Your task to perform on an android device: open app "Pluto TV - Live TV and Movies" (install if not already installed), go to login, and select forgot password Image 0: 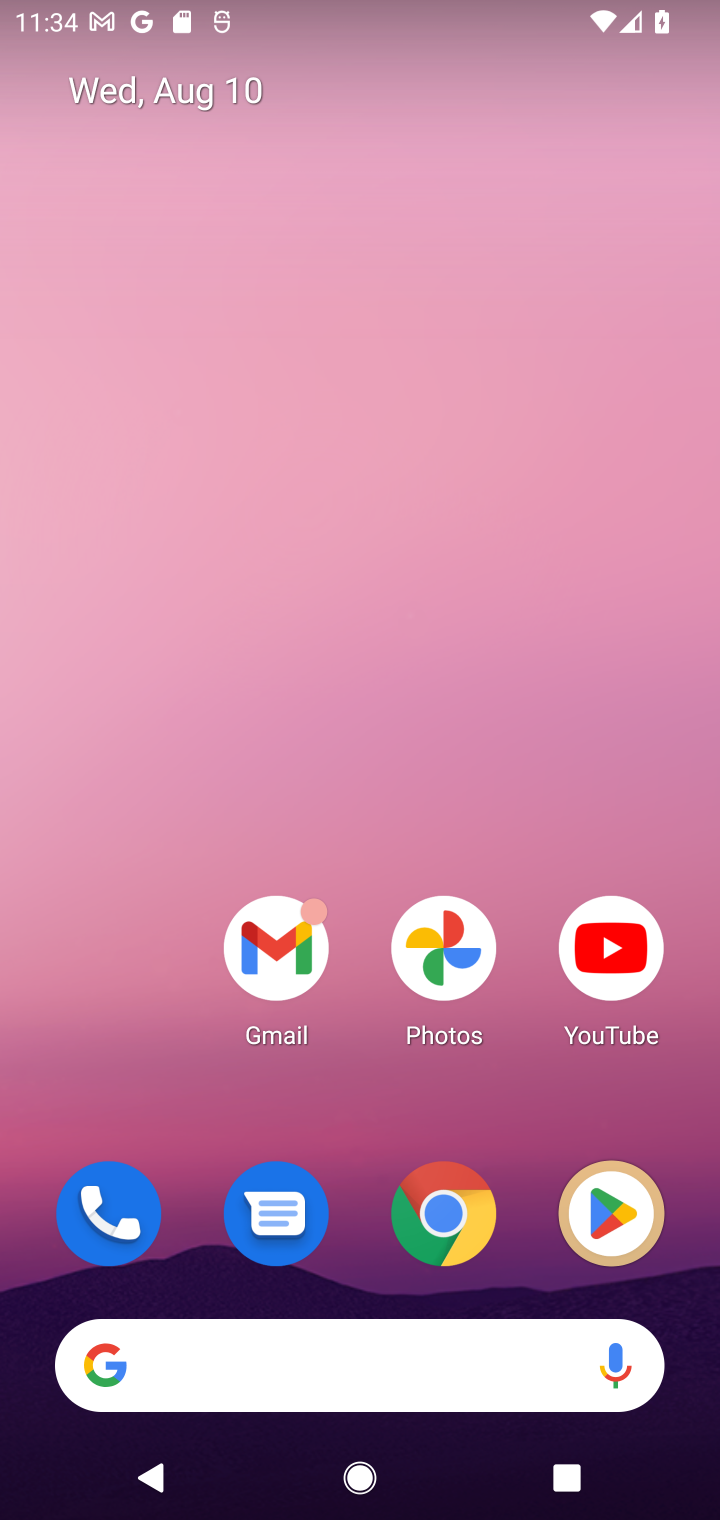
Step 0: drag from (310, 1350) to (386, 301)
Your task to perform on an android device: open app "Pluto TV - Live TV and Movies" (install if not already installed), go to login, and select forgot password Image 1: 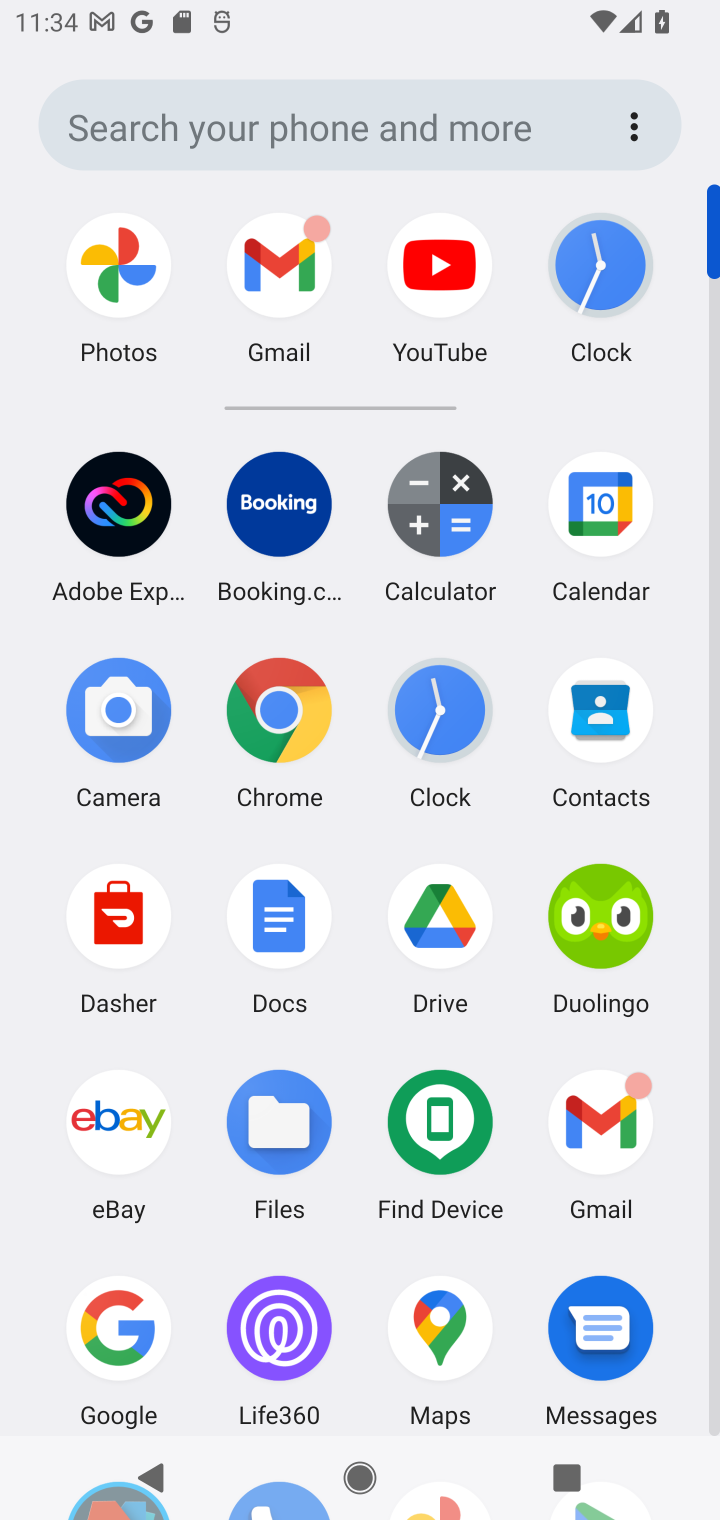
Step 1: drag from (372, 1153) to (413, 747)
Your task to perform on an android device: open app "Pluto TV - Live TV and Movies" (install if not already installed), go to login, and select forgot password Image 2: 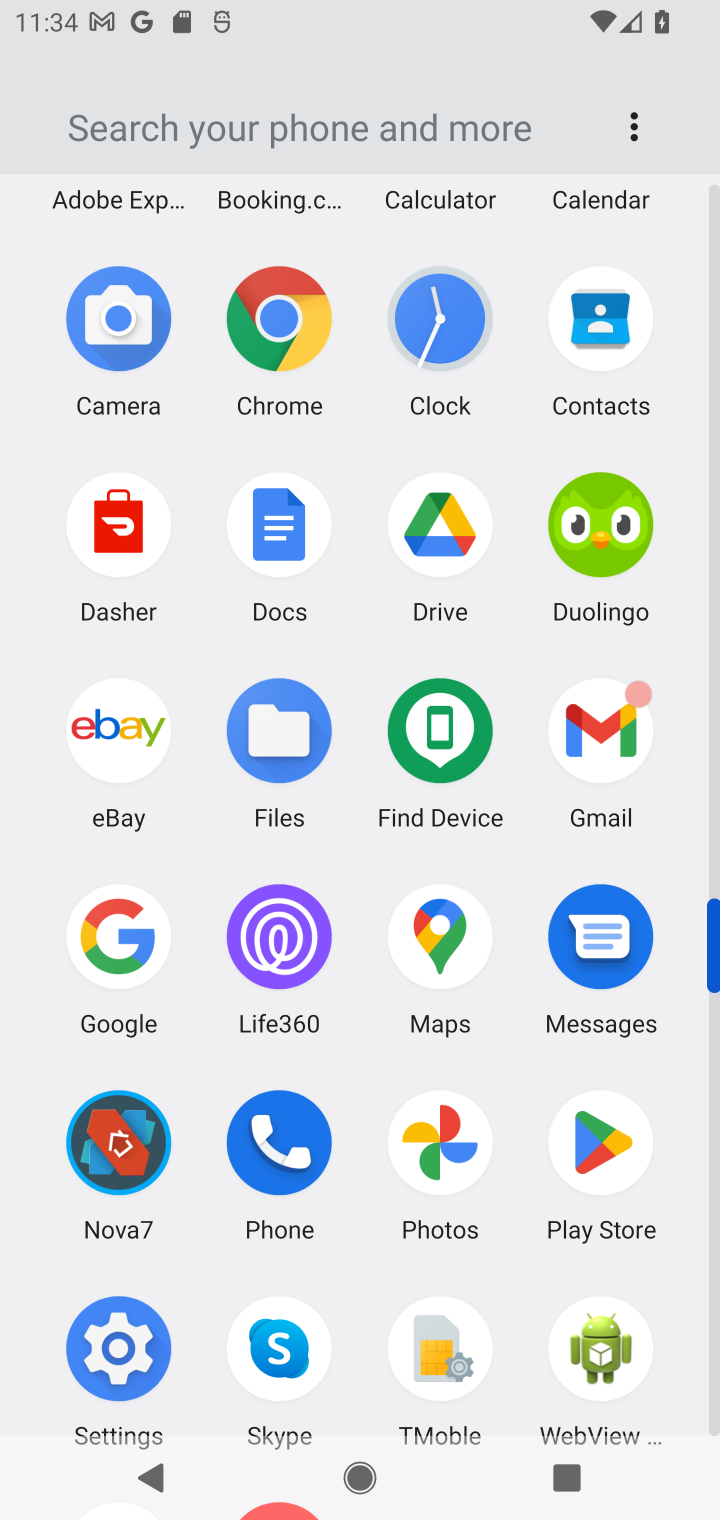
Step 2: click (603, 1145)
Your task to perform on an android device: open app "Pluto TV - Live TV and Movies" (install if not already installed), go to login, and select forgot password Image 3: 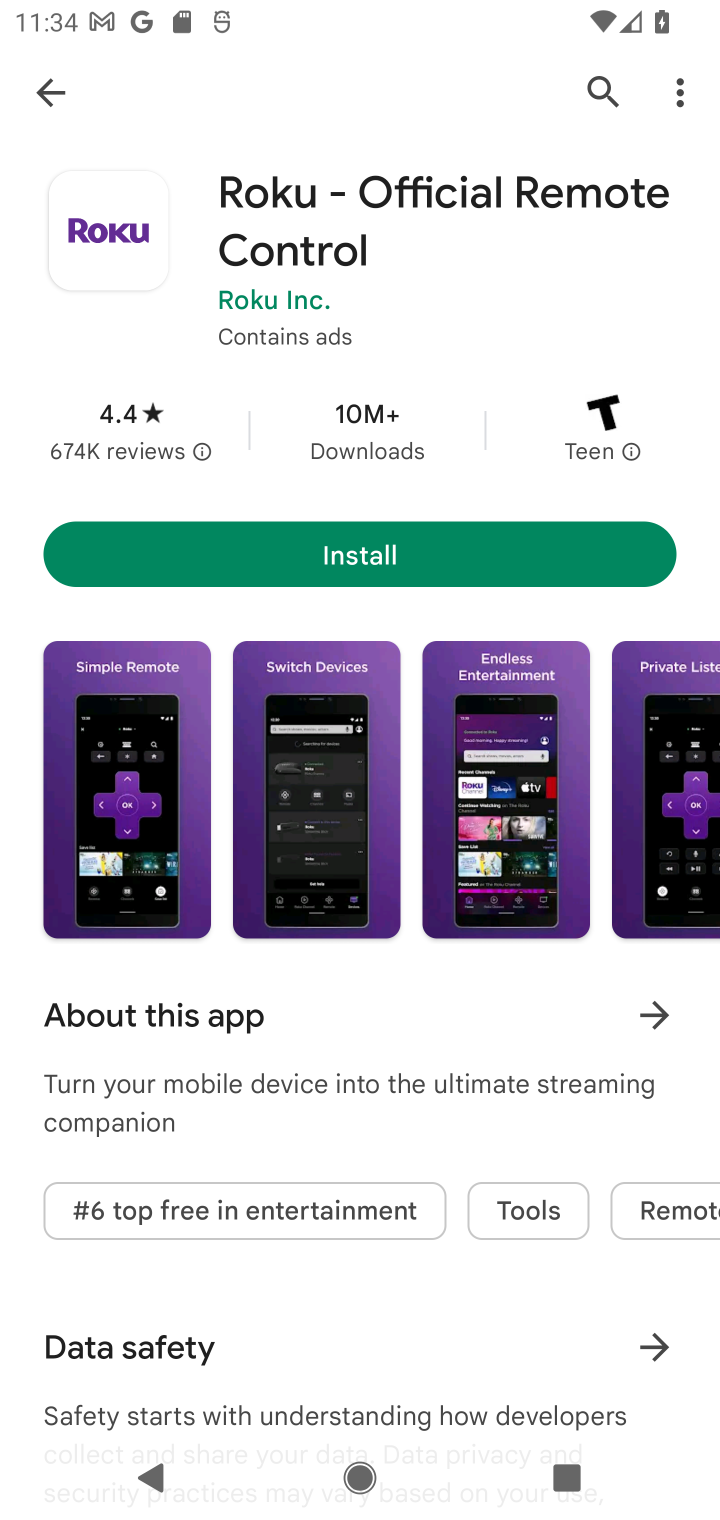
Step 3: press back button
Your task to perform on an android device: open app "Pluto TV - Live TV and Movies" (install if not already installed), go to login, and select forgot password Image 4: 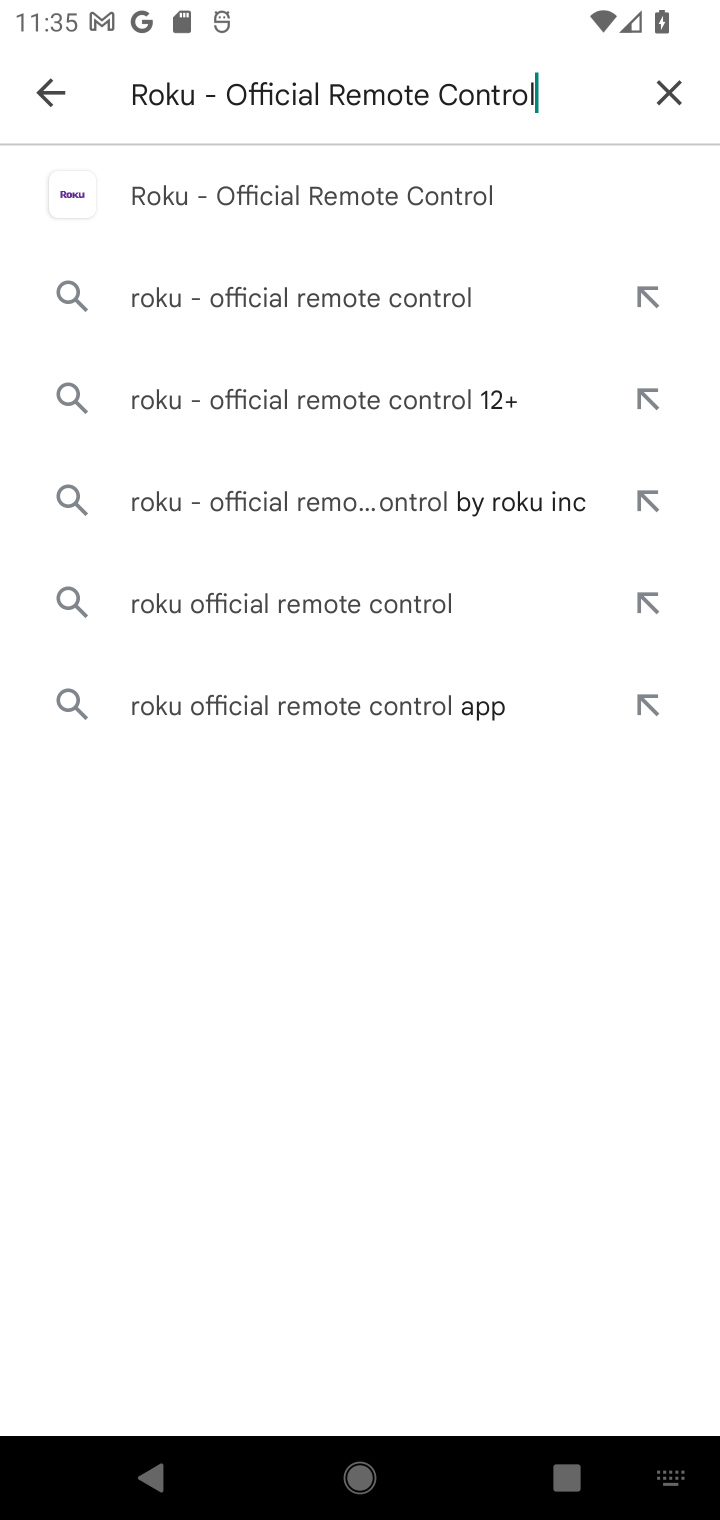
Step 4: press back button
Your task to perform on an android device: open app "Pluto TV - Live TV and Movies" (install if not already installed), go to login, and select forgot password Image 5: 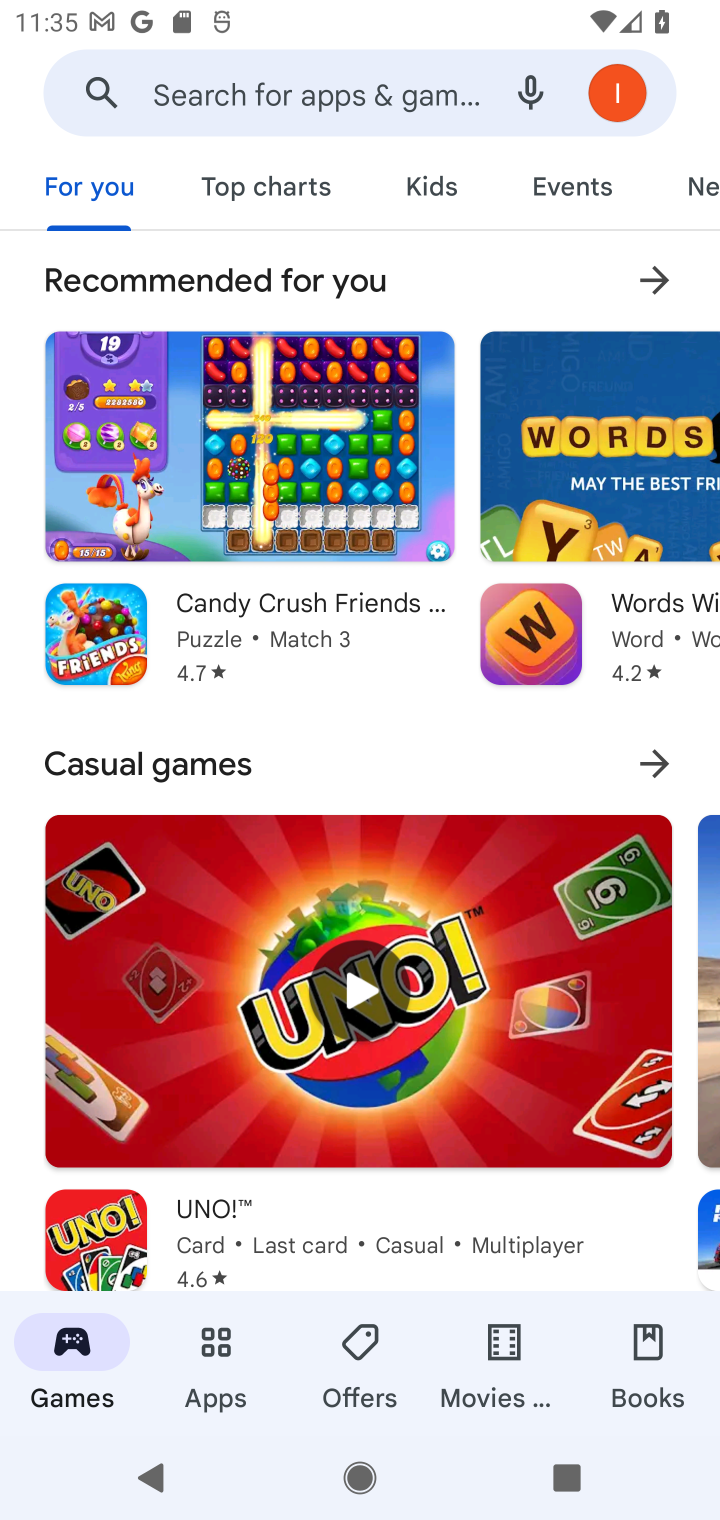
Step 5: click (264, 85)
Your task to perform on an android device: open app "Pluto TV - Live TV and Movies" (install if not already installed), go to login, and select forgot password Image 6: 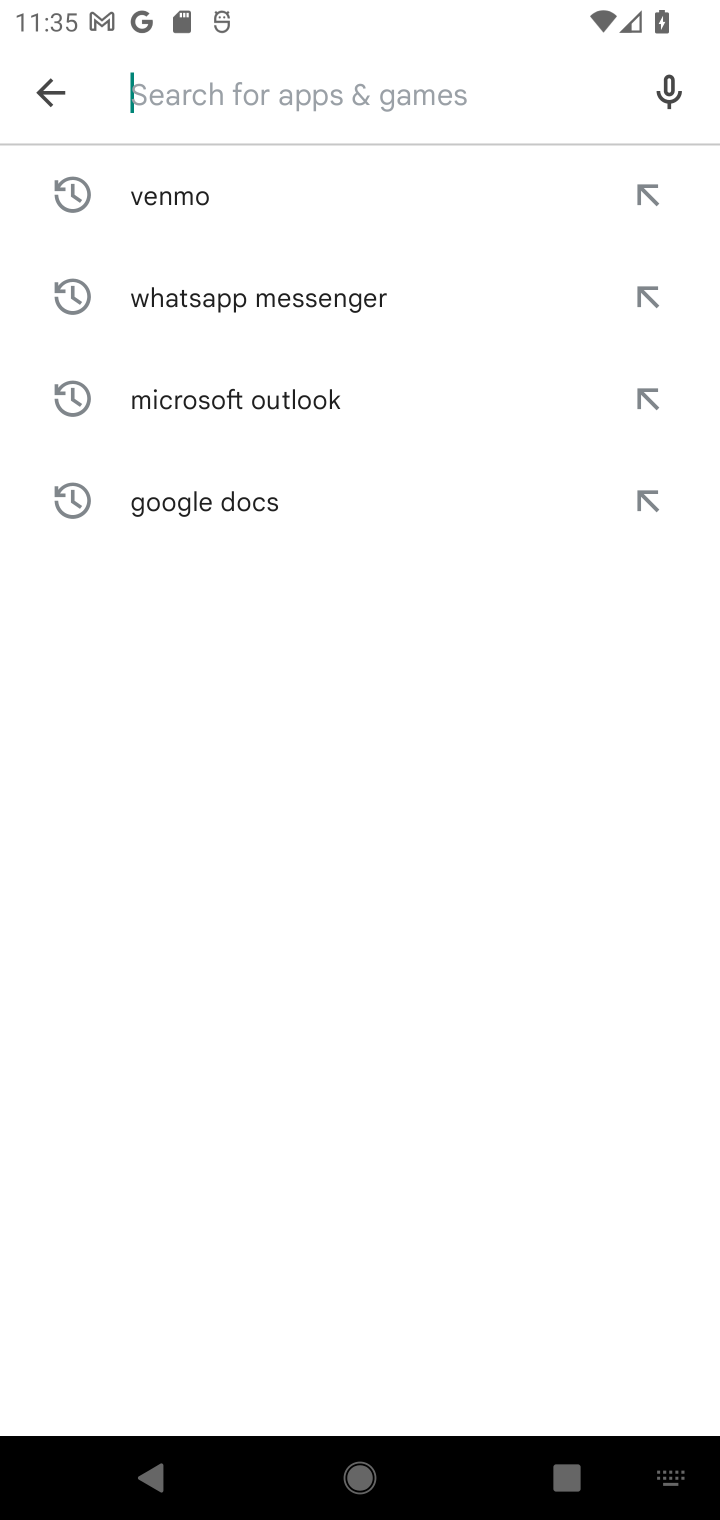
Step 6: type "Pluto TV - Live TV and Movies"
Your task to perform on an android device: open app "Pluto TV - Live TV and Movies" (install if not already installed), go to login, and select forgot password Image 7: 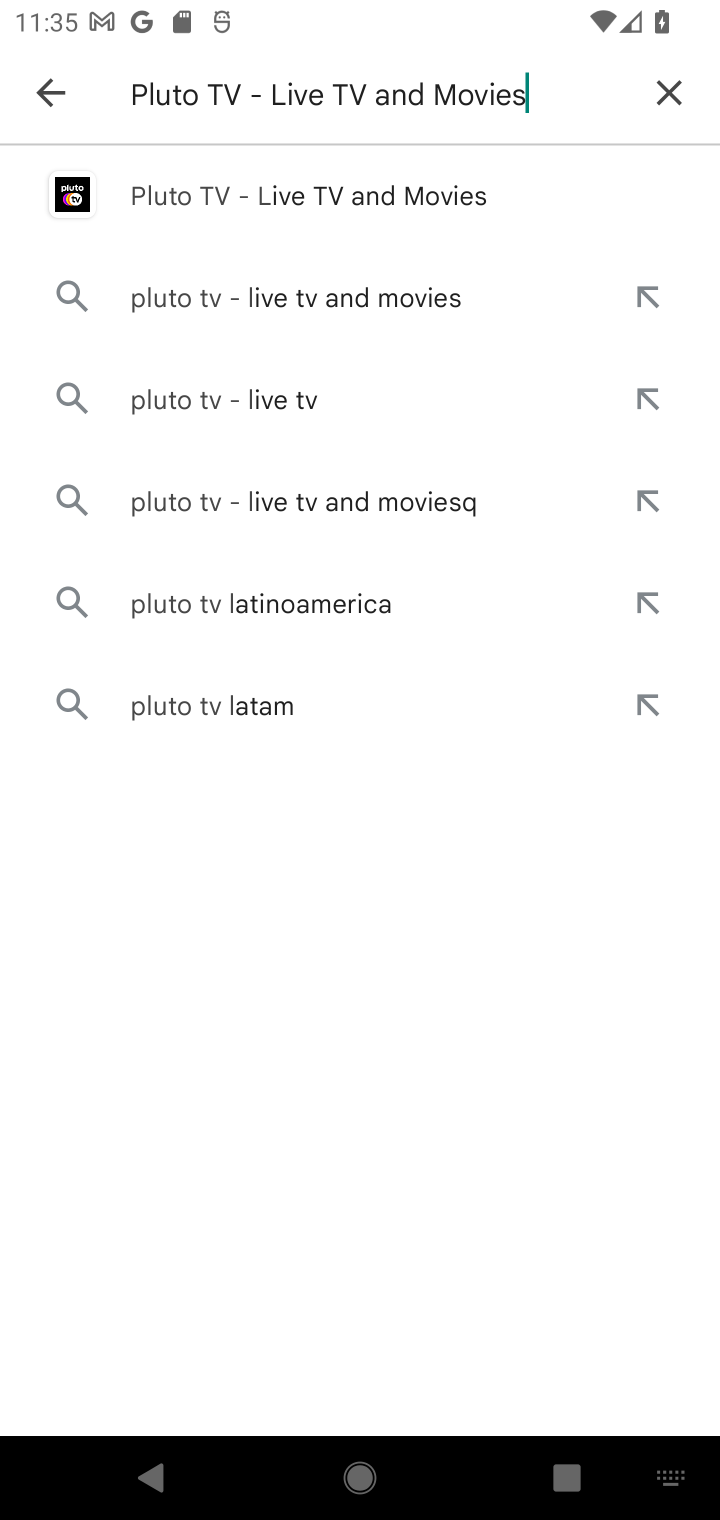
Step 7: type ""
Your task to perform on an android device: open app "Pluto TV - Live TV and Movies" (install if not already installed), go to login, and select forgot password Image 8: 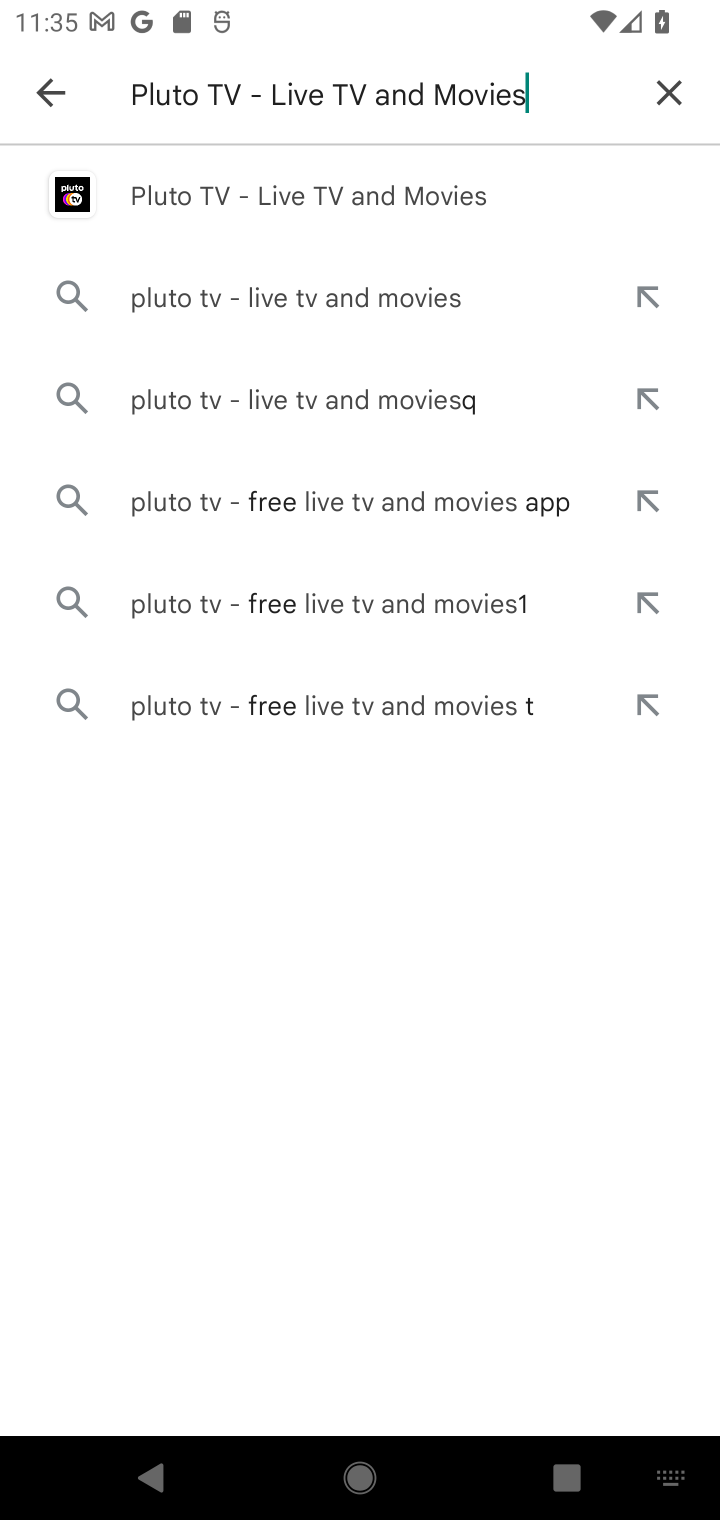
Step 8: click (271, 202)
Your task to perform on an android device: open app "Pluto TV - Live TV and Movies" (install if not already installed), go to login, and select forgot password Image 9: 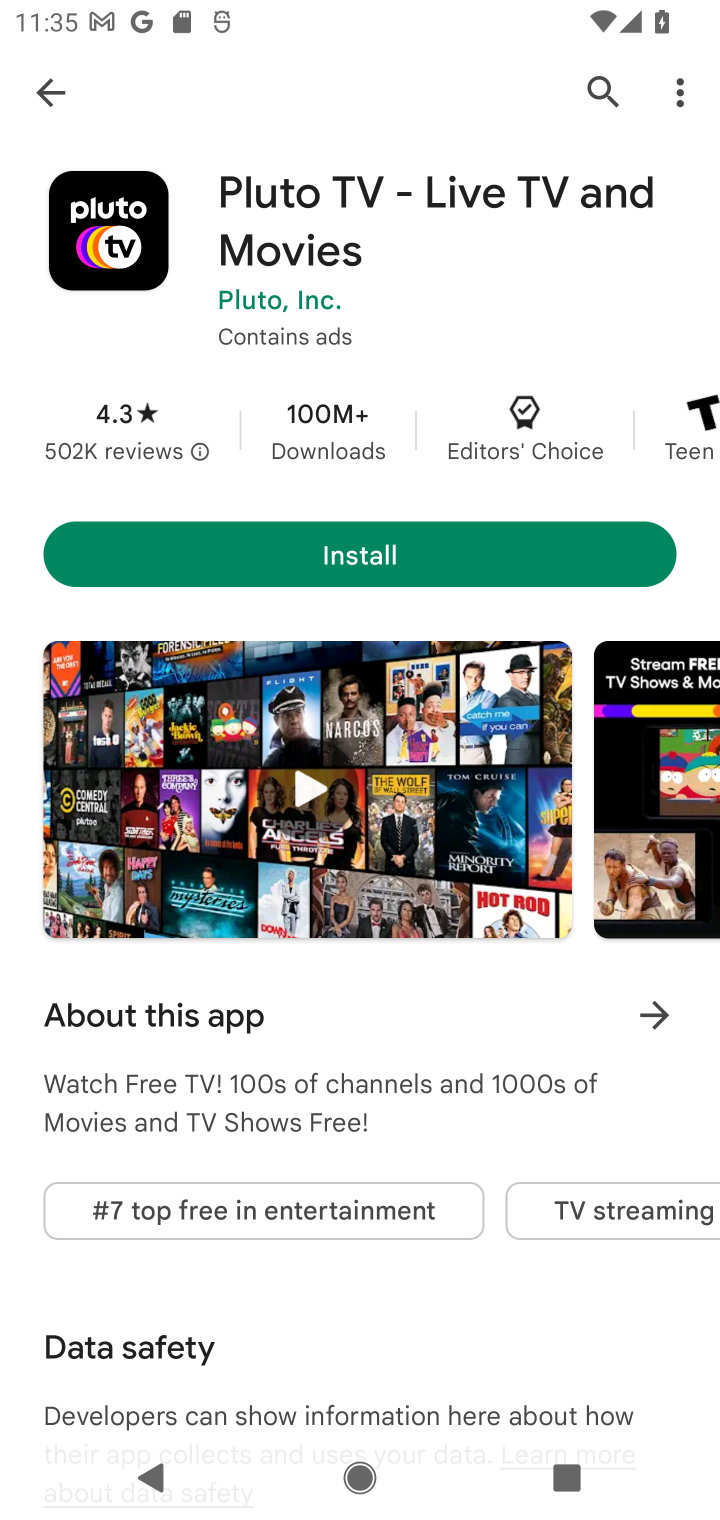
Step 9: click (352, 556)
Your task to perform on an android device: open app "Pluto TV - Live TV and Movies" (install if not already installed), go to login, and select forgot password Image 10: 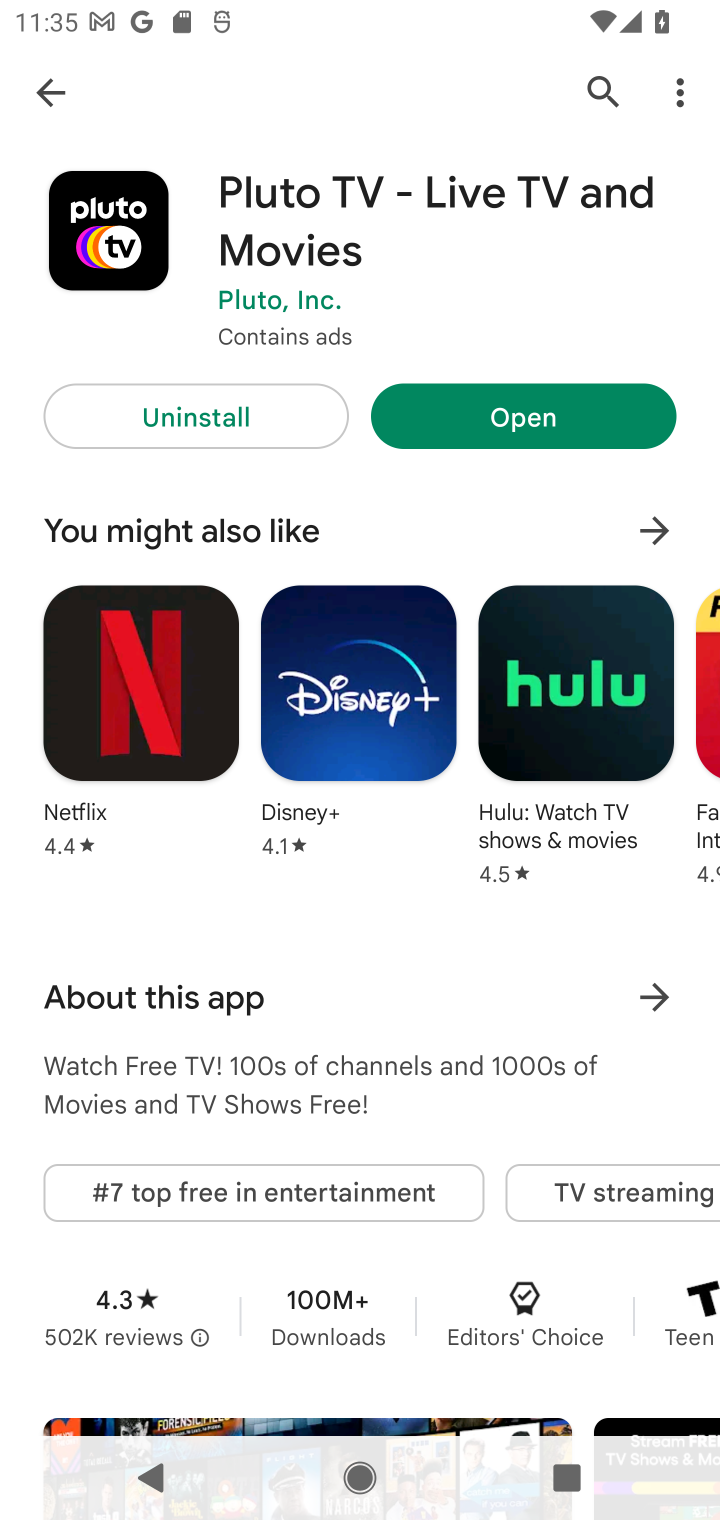
Step 10: click (523, 428)
Your task to perform on an android device: open app "Pluto TV - Live TV and Movies" (install if not already installed), go to login, and select forgot password Image 11: 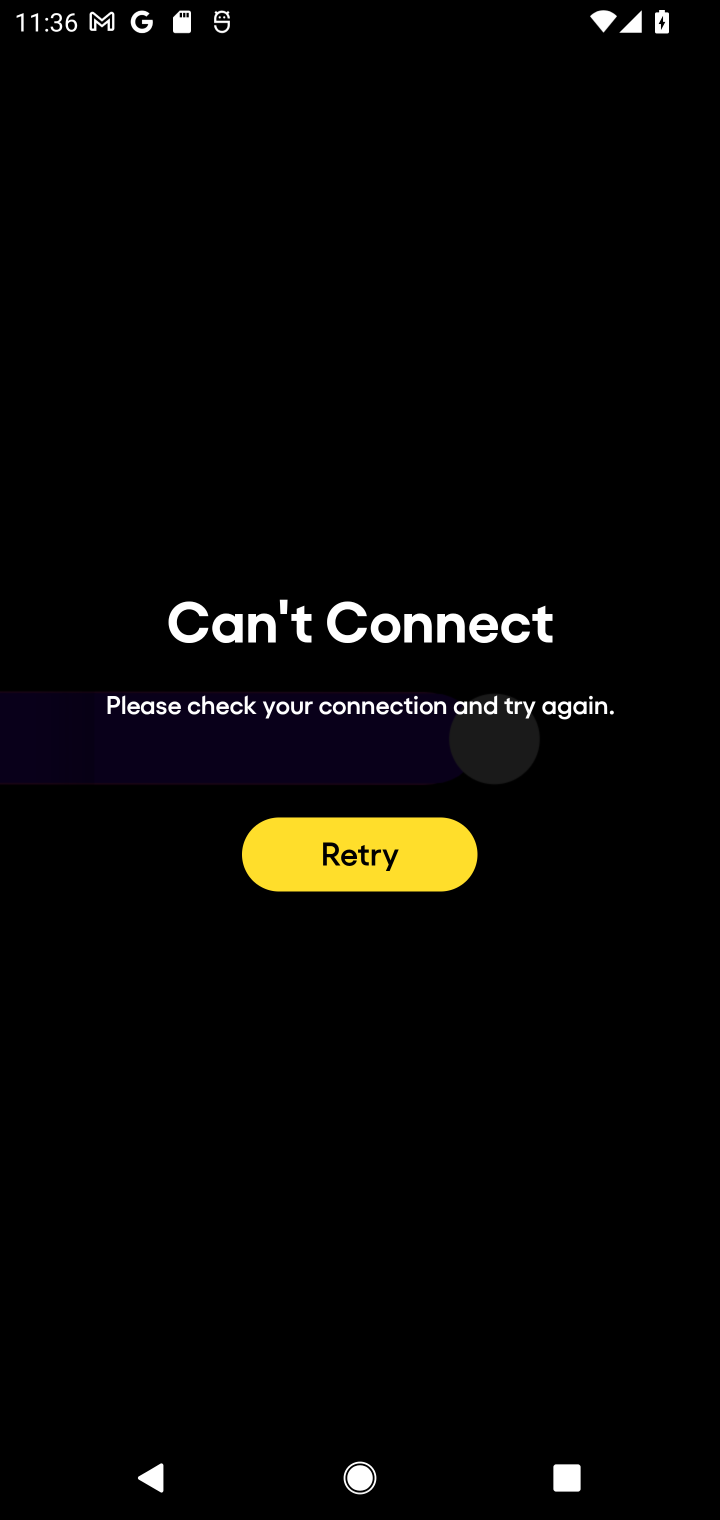
Step 11: click (360, 873)
Your task to perform on an android device: open app "Pluto TV - Live TV and Movies" (install if not already installed), go to login, and select forgot password Image 12: 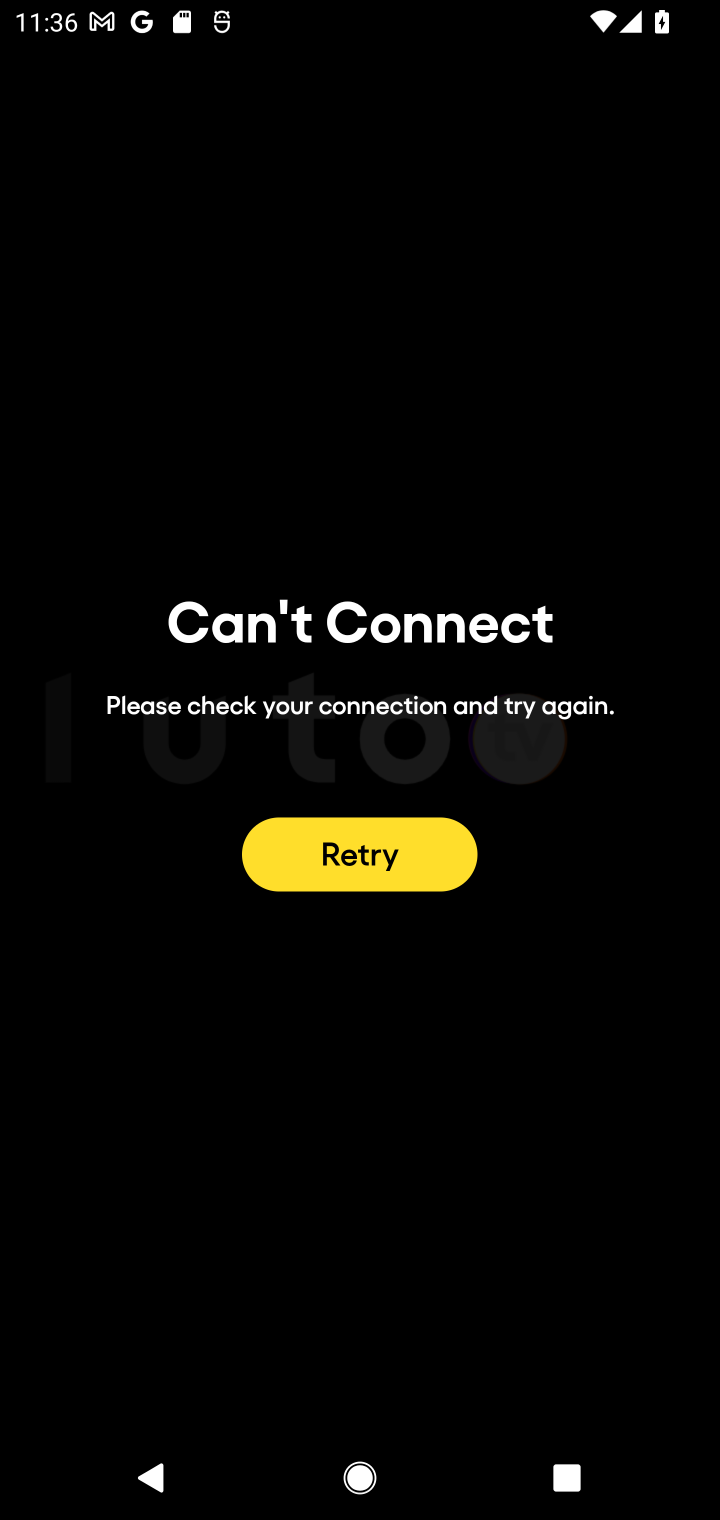
Step 12: click (396, 706)
Your task to perform on an android device: open app "Pluto TV - Live TV and Movies" (install if not already installed), go to login, and select forgot password Image 13: 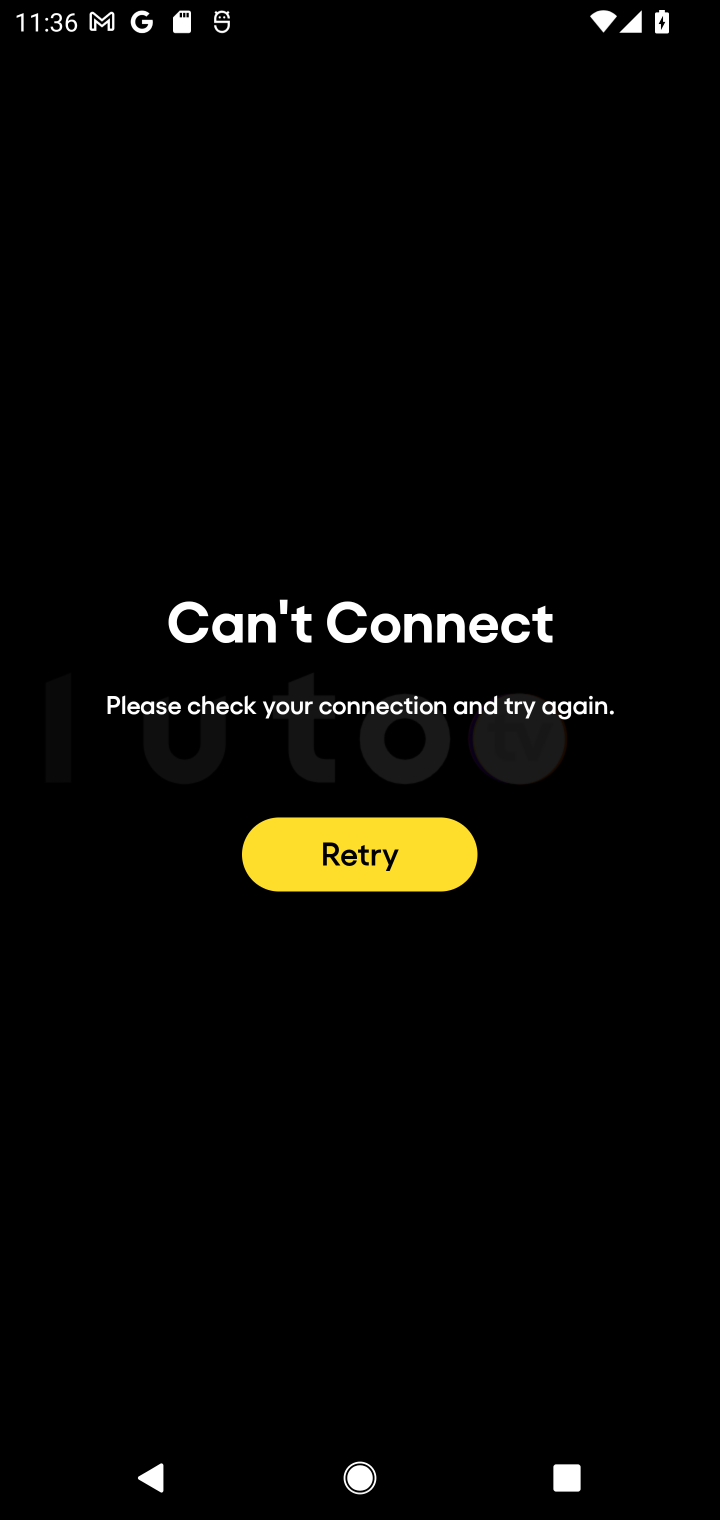
Step 13: click (364, 848)
Your task to perform on an android device: open app "Pluto TV - Live TV and Movies" (install if not already installed), go to login, and select forgot password Image 14: 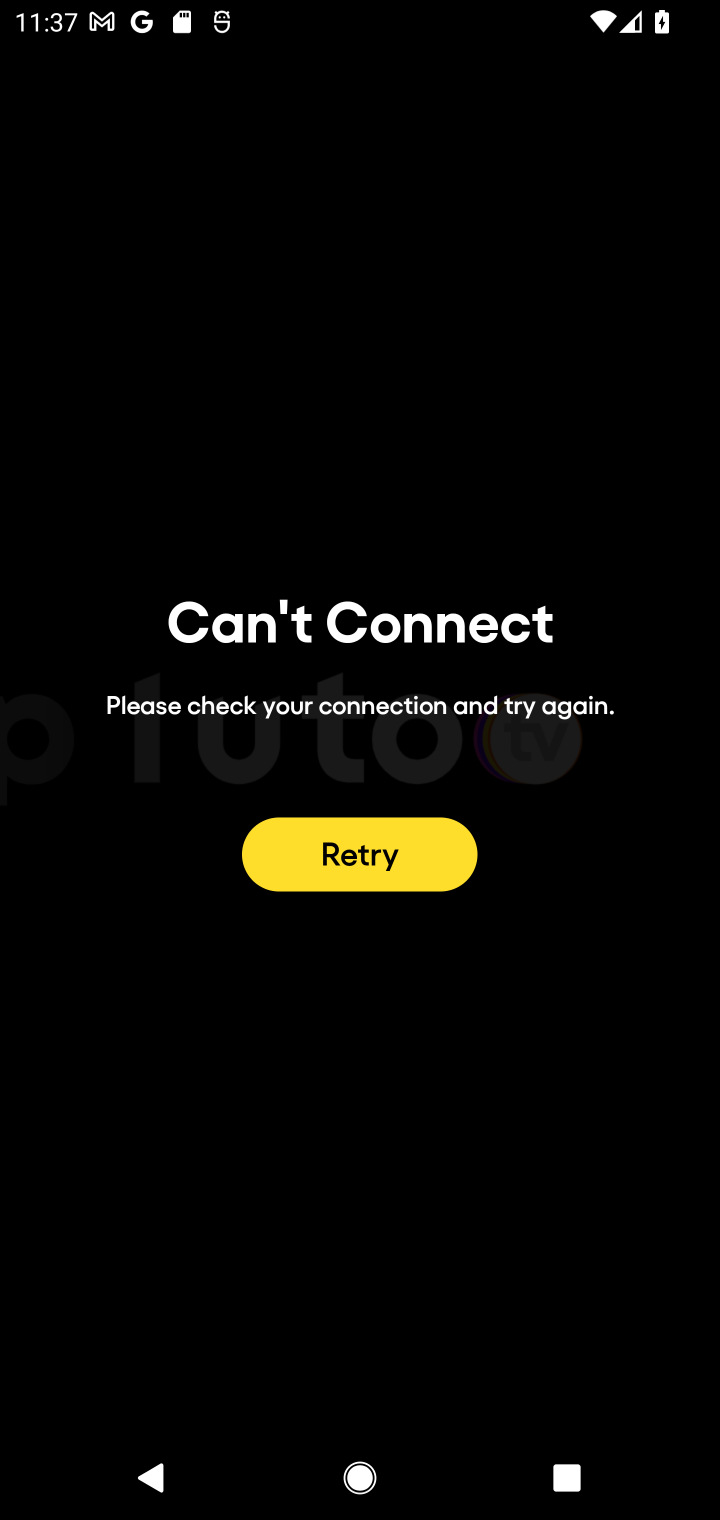
Step 14: task complete